Your task to perform on an android device: set the timer Image 0: 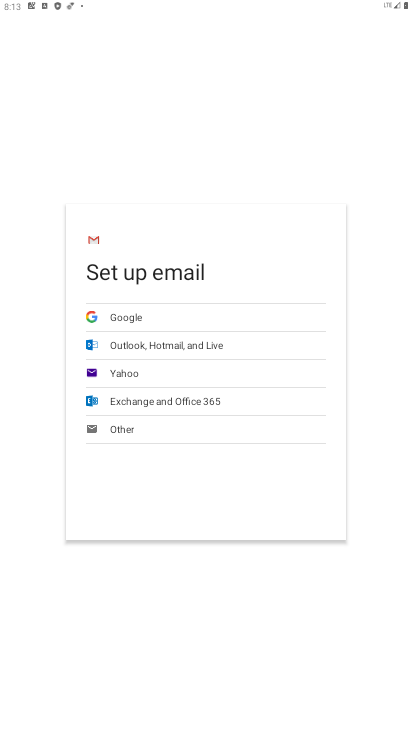
Step 0: press home button
Your task to perform on an android device: set the timer Image 1: 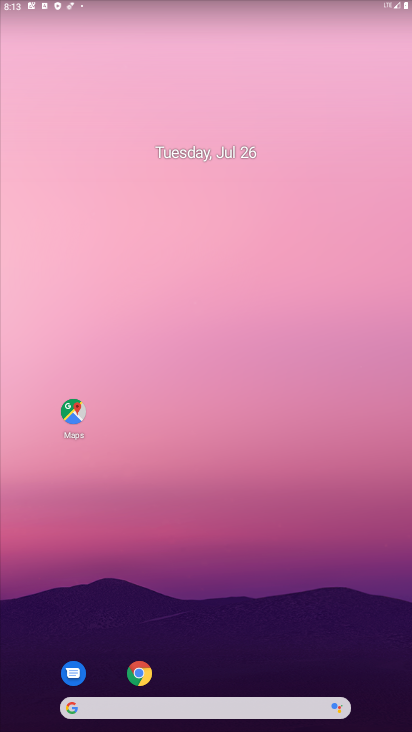
Step 1: drag from (193, 652) to (233, 5)
Your task to perform on an android device: set the timer Image 2: 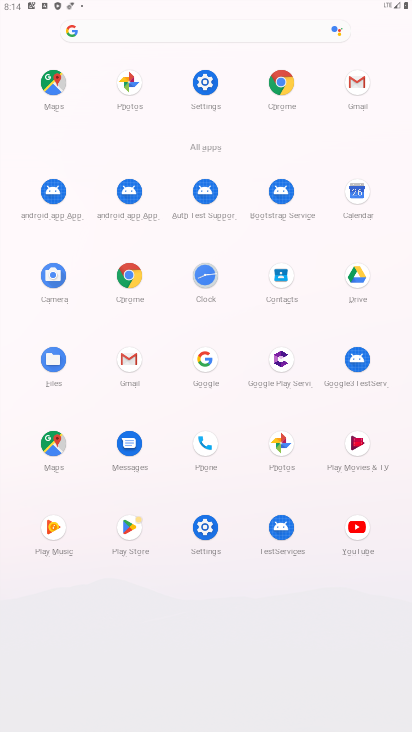
Step 2: click (198, 271)
Your task to perform on an android device: set the timer Image 3: 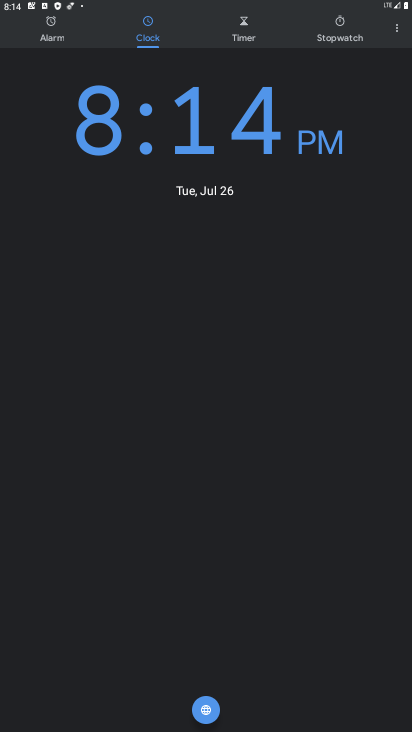
Step 3: click (252, 26)
Your task to perform on an android device: set the timer Image 4: 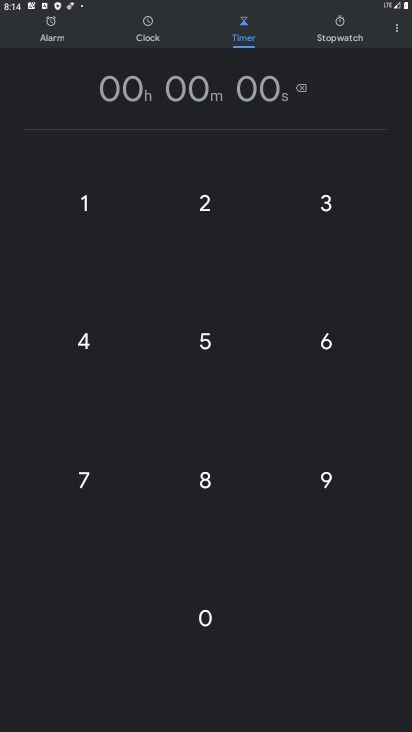
Step 4: click (254, 100)
Your task to perform on an android device: set the timer Image 5: 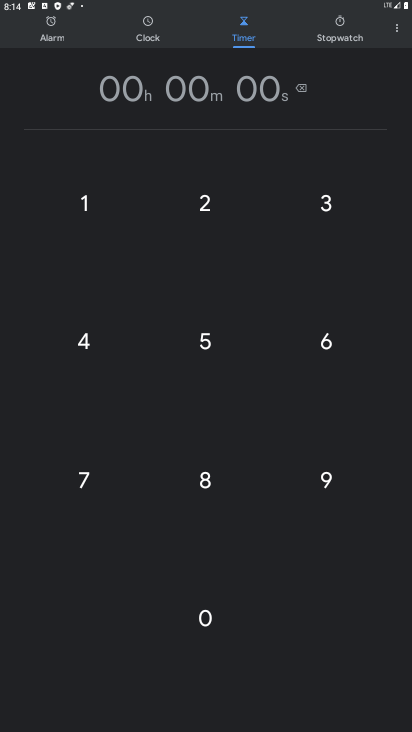
Step 5: type "11"
Your task to perform on an android device: set the timer Image 6: 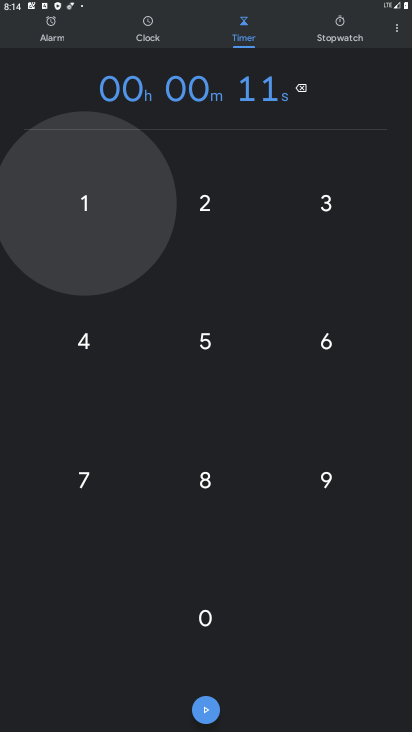
Step 6: click (203, 719)
Your task to perform on an android device: set the timer Image 7: 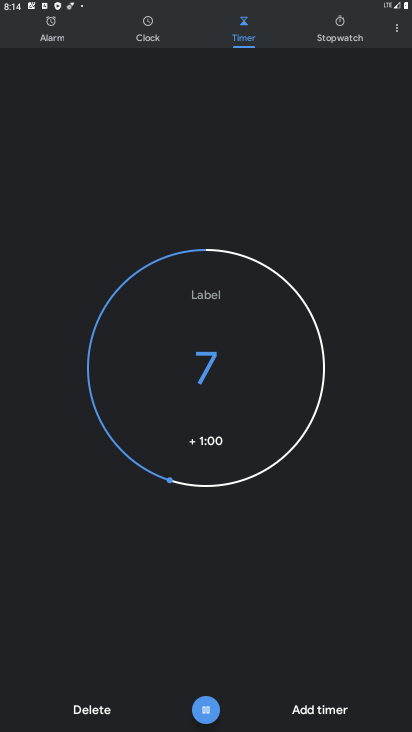
Step 7: task complete